Your task to perform on an android device: Open network settings Image 0: 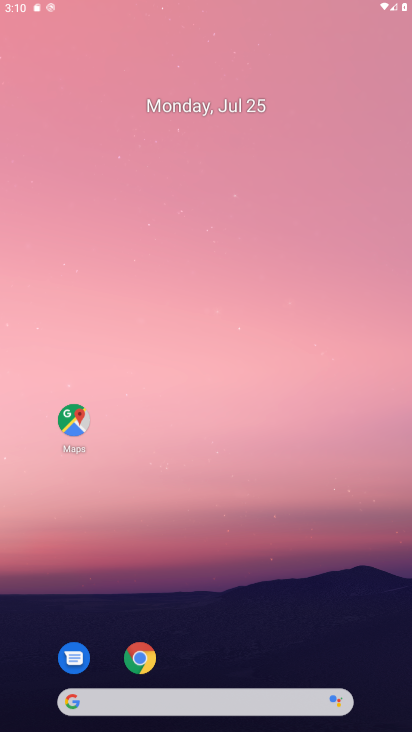
Step 0: click (187, 33)
Your task to perform on an android device: Open network settings Image 1: 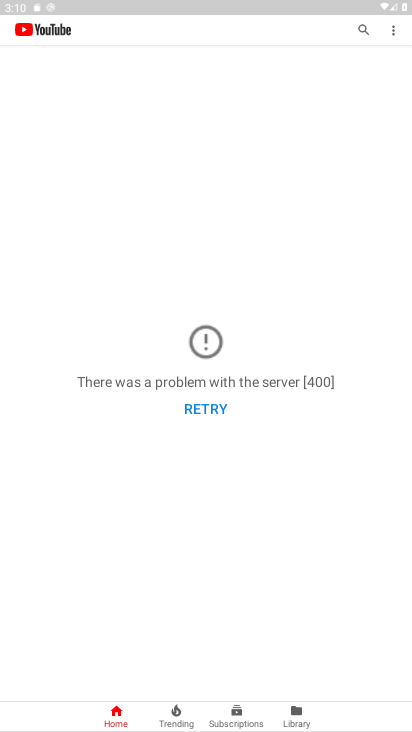
Step 1: press home button
Your task to perform on an android device: Open network settings Image 2: 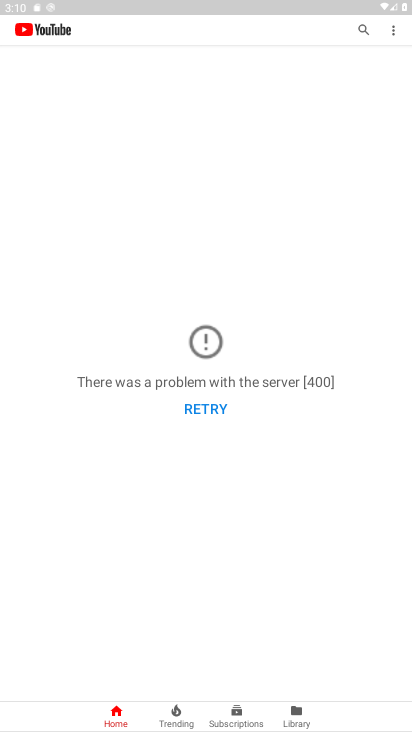
Step 2: drag from (187, 33) to (338, 498)
Your task to perform on an android device: Open network settings Image 3: 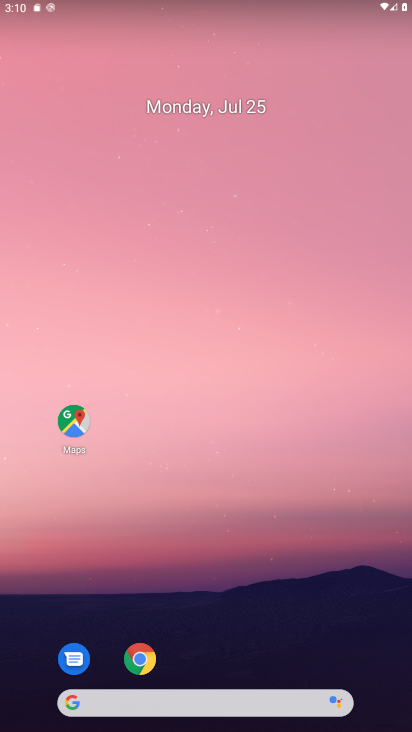
Step 3: click (80, 603)
Your task to perform on an android device: Open network settings Image 4: 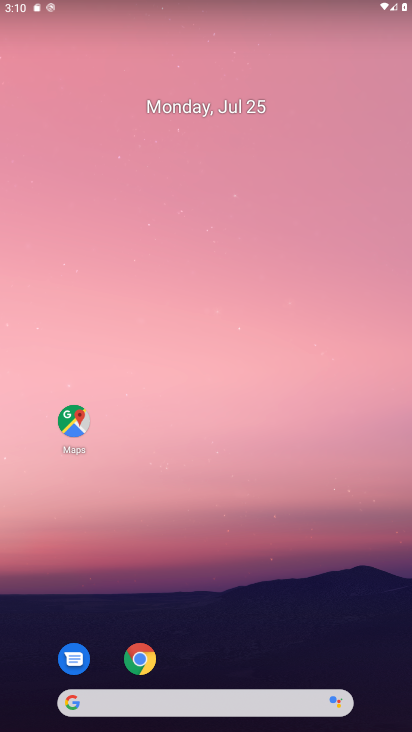
Step 4: drag from (204, 541) to (303, 90)
Your task to perform on an android device: Open network settings Image 5: 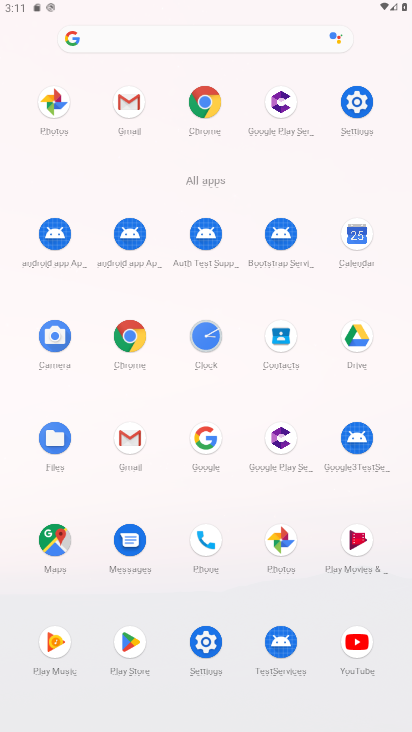
Step 5: click (356, 110)
Your task to perform on an android device: Open network settings Image 6: 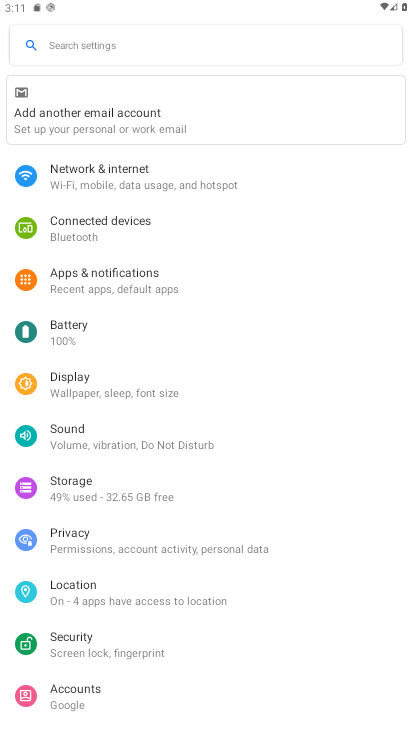
Step 6: click (173, 188)
Your task to perform on an android device: Open network settings Image 7: 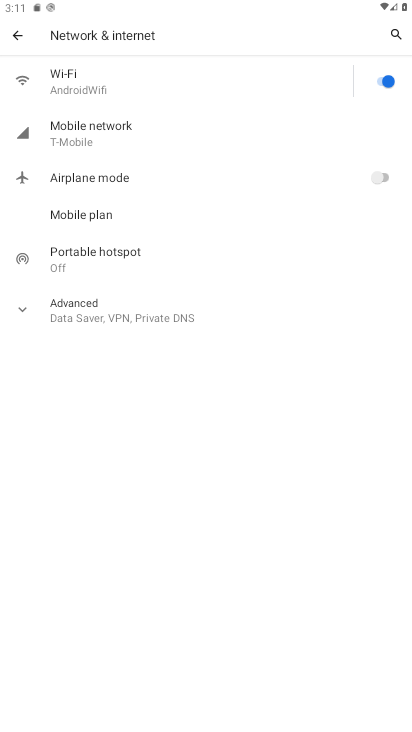
Step 7: task complete